Your task to perform on an android device: toggle improve location accuracy Image 0: 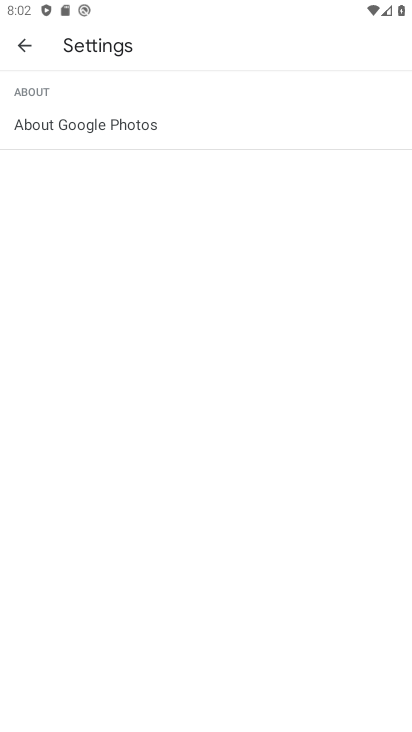
Step 0: press home button
Your task to perform on an android device: toggle improve location accuracy Image 1: 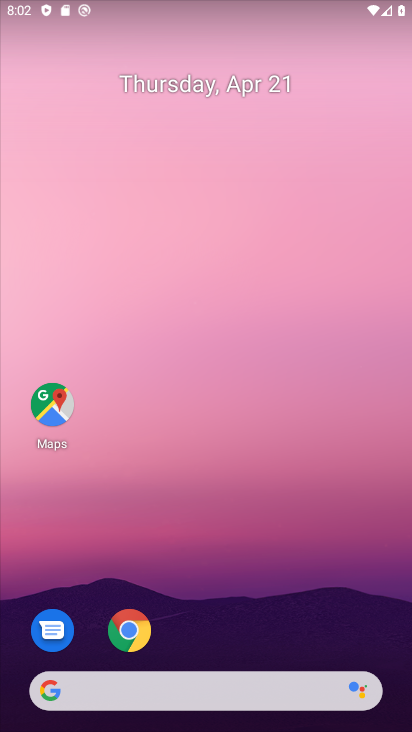
Step 1: drag from (319, 643) to (195, 137)
Your task to perform on an android device: toggle improve location accuracy Image 2: 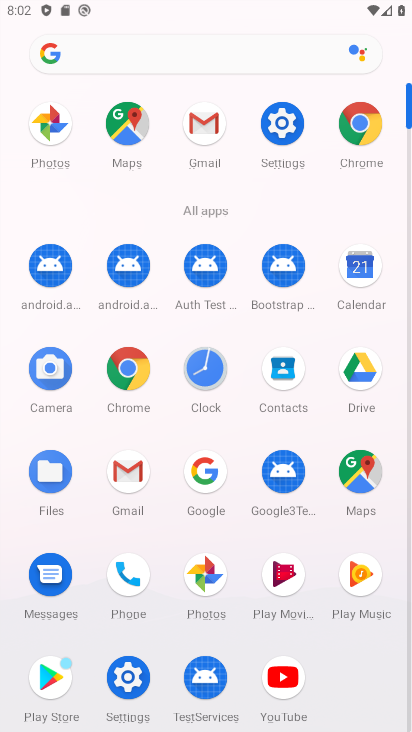
Step 2: click (142, 669)
Your task to perform on an android device: toggle improve location accuracy Image 3: 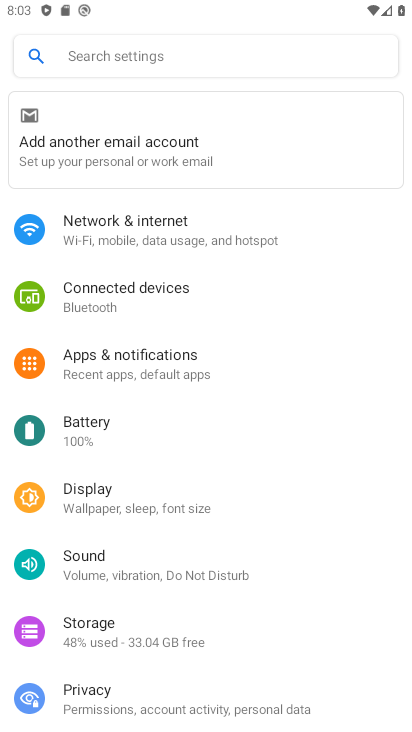
Step 3: drag from (152, 649) to (178, 398)
Your task to perform on an android device: toggle improve location accuracy Image 4: 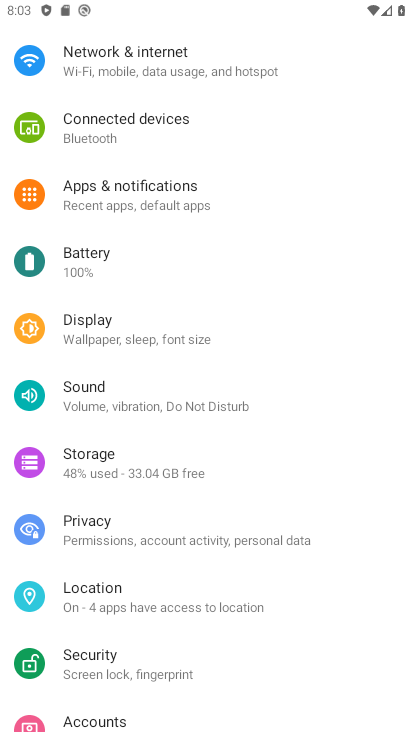
Step 4: click (148, 604)
Your task to perform on an android device: toggle improve location accuracy Image 5: 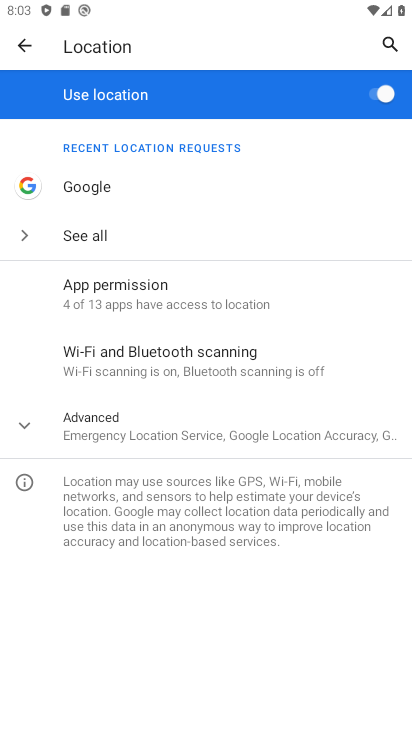
Step 5: click (180, 424)
Your task to perform on an android device: toggle improve location accuracy Image 6: 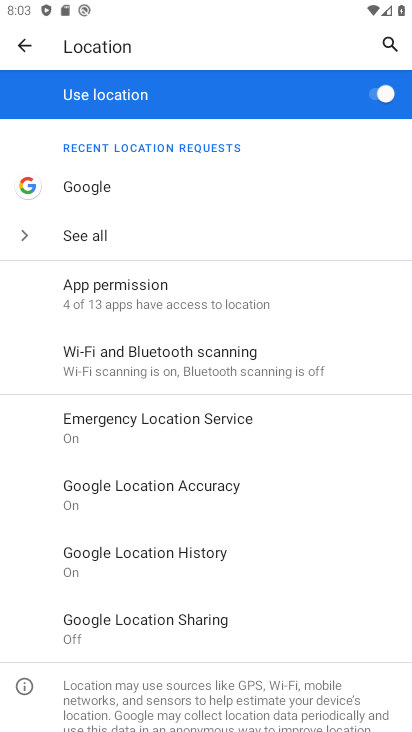
Step 6: click (178, 486)
Your task to perform on an android device: toggle improve location accuracy Image 7: 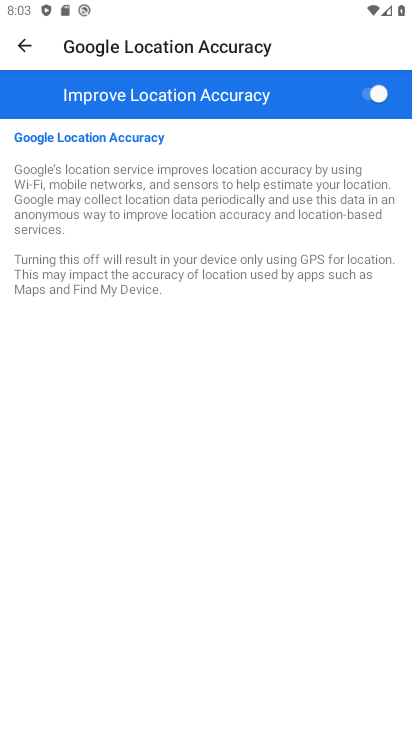
Step 7: click (363, 101)
Your task to perform on an android device: toggle improve location accuracy Image 8: 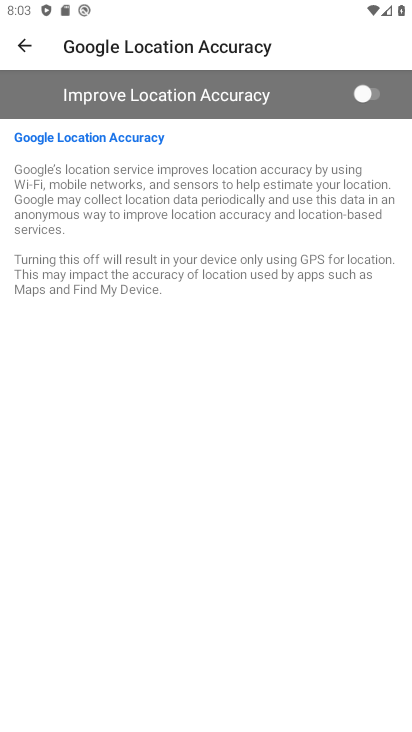
Step 8: task complete